Your task to perform on an android device: see tabs open on other devices in the chrome app Image 0: 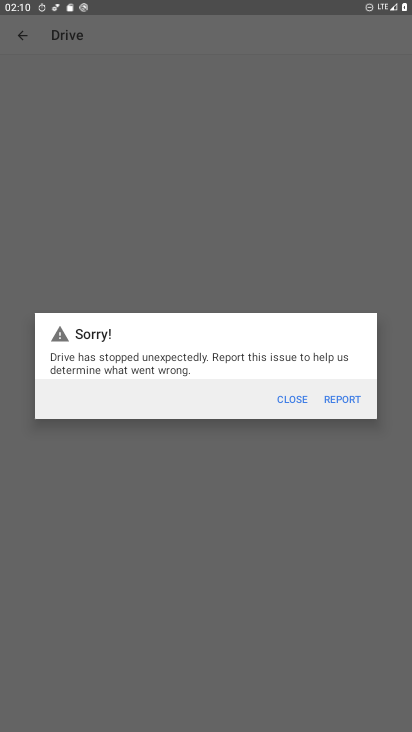
Step 0: press home button
Your task to perform on an android device: see tabs open on other devices in the chrome app Image 1: 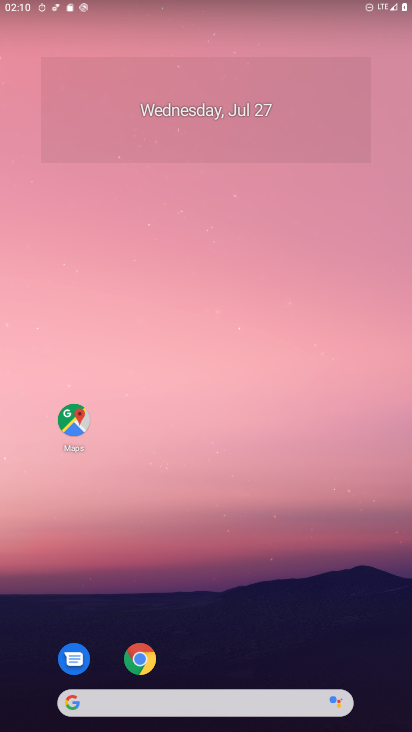
Step 1: drag from (298, 653) to (210, 108)
Your task to perform on an android device: see tabs open on other devices in the chrome app Image 2: 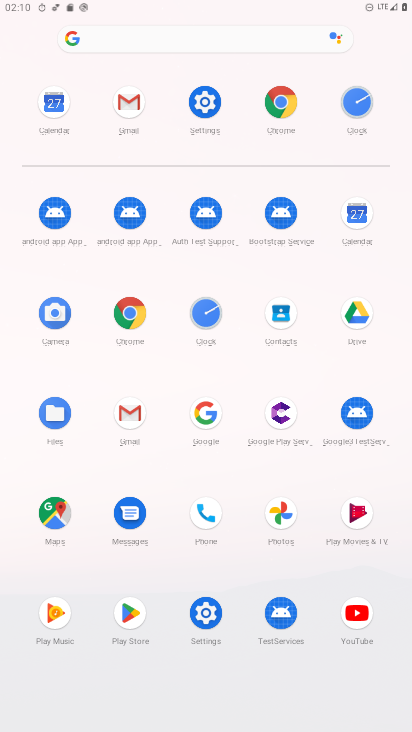
Step 2: click (282, 106)
Your task to perform on an android device: see tabs open on other devices in the chrome app Image 3: 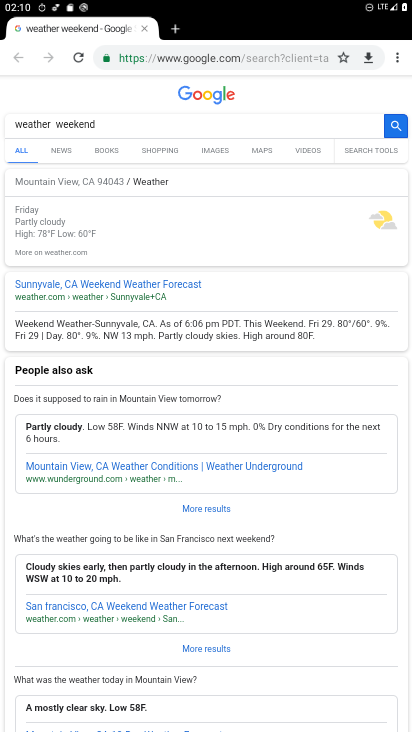
Step 3: task complete